Your task to perform on an android device: Go to wifi settings Image 0: 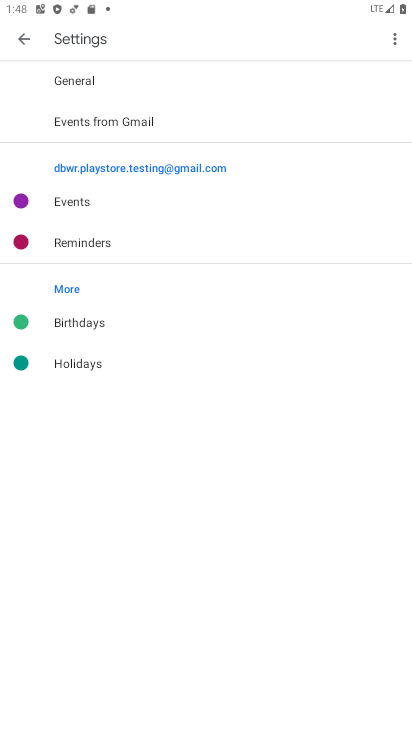
Step 0: press home button
Your task to perform on an android device: Go to wifi settings Image 1: 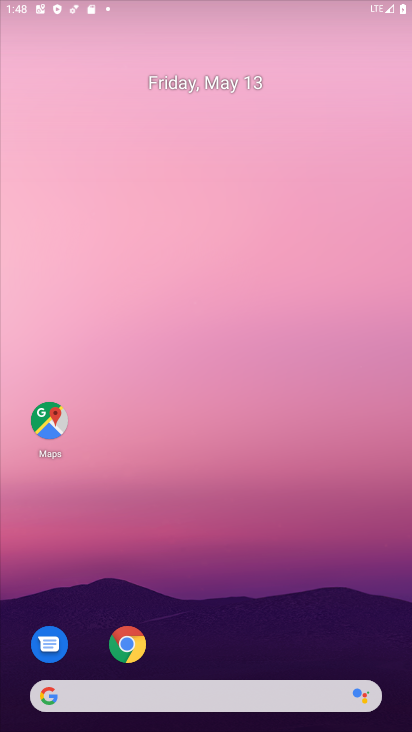
Step 1: drag from (331, 612) to (205, 96)
Your task to perform on an android device: Go to wifi settings Image 2: 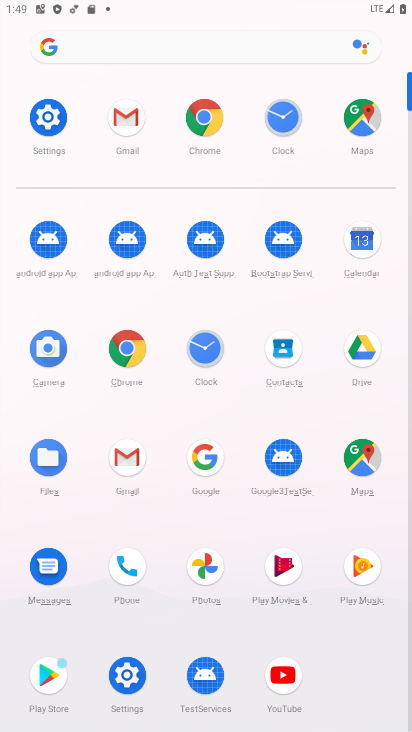
Step 2: click (49, 109)
Your task to perform on an android device: Go to wifi settings Image 3: 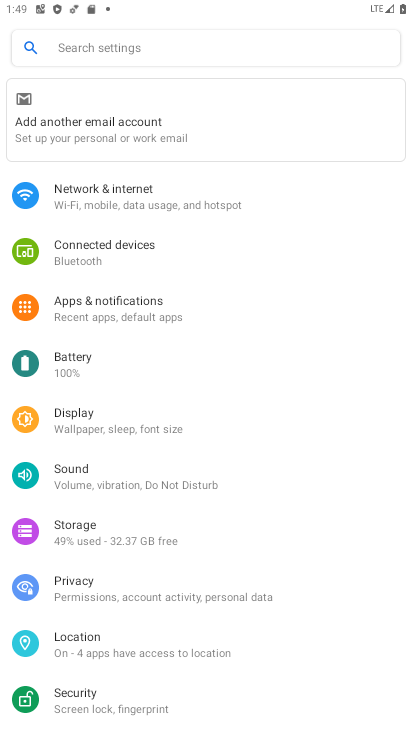
Step 3: click (100, 196)
Your task to perform on an android device: Go to wifi settings Image 4: 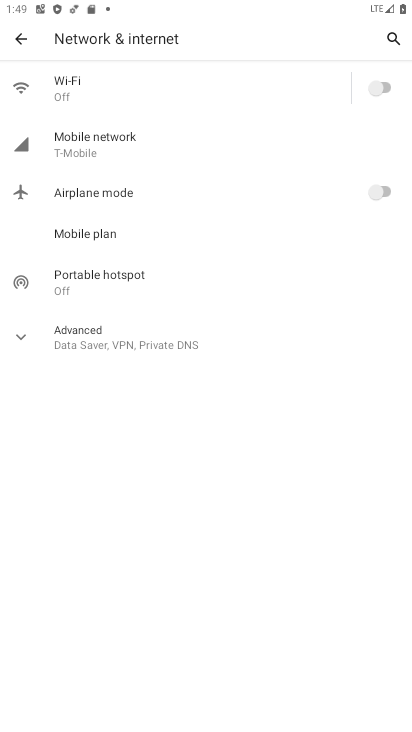
Step 4: click (125, 81)
Your task to perform on an android device: Go to wifi settings Image 5: 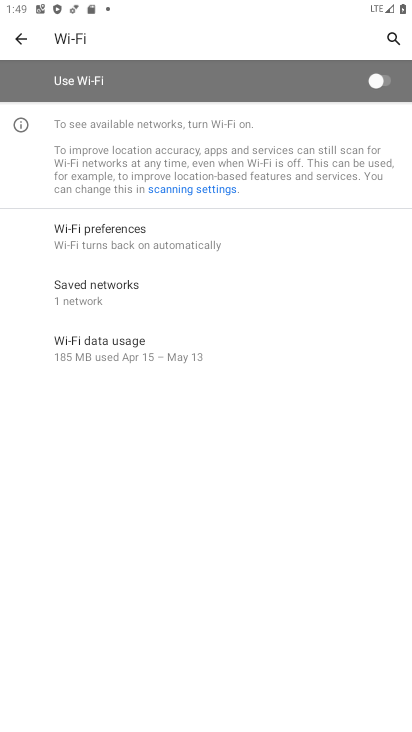
Step 5: task complete